Your task to perform on an android device: Open Reddit.com Image 0: 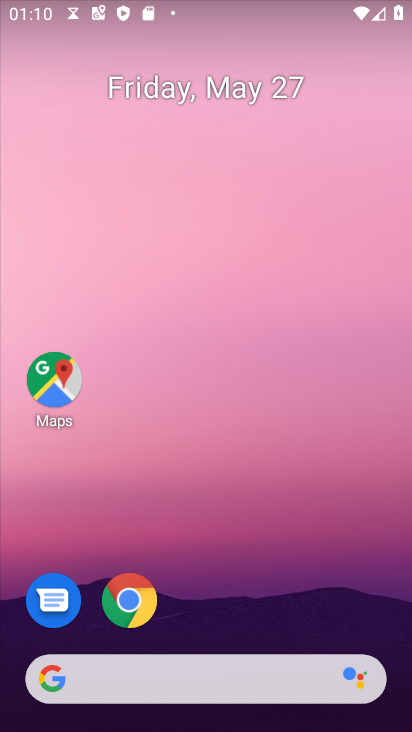
Step 0: click (132, 617)
Your task to perform on an android device: Open Reddit.com Image 1: 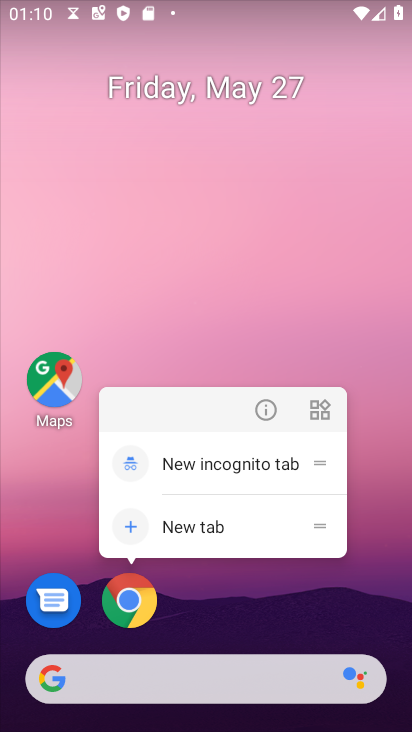
Step 1: click (138, 606)
Your task to perform on an android device: Open Reddit.com Image 2: 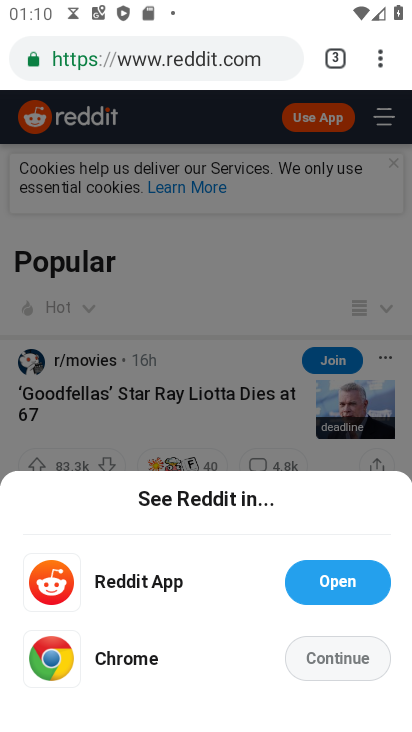
Step 2: task complete